Your task to perform on an android device: see creations saved in the google photos Image 0: 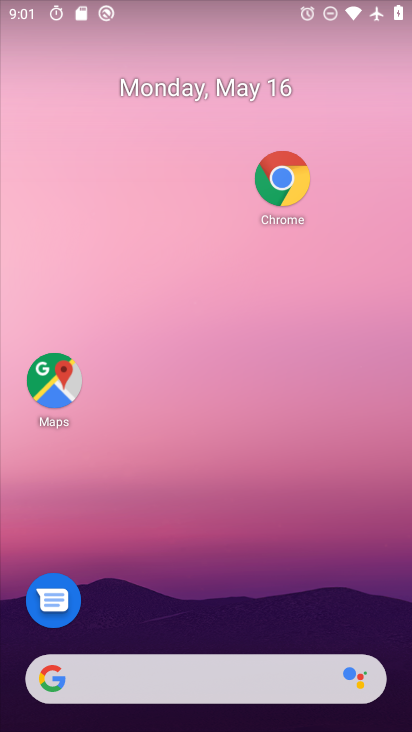
Step 0: drag from (150, 676) to (310, 90)
Your task to perform on an android device: see creations saved in the google photos Image 1: 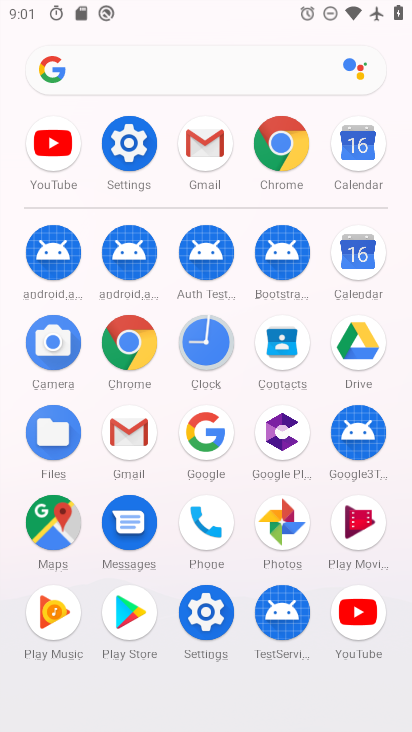
Step 1: click (281, 536)
Your task to perform on an android device: see creations saved in the google photos Image 2: 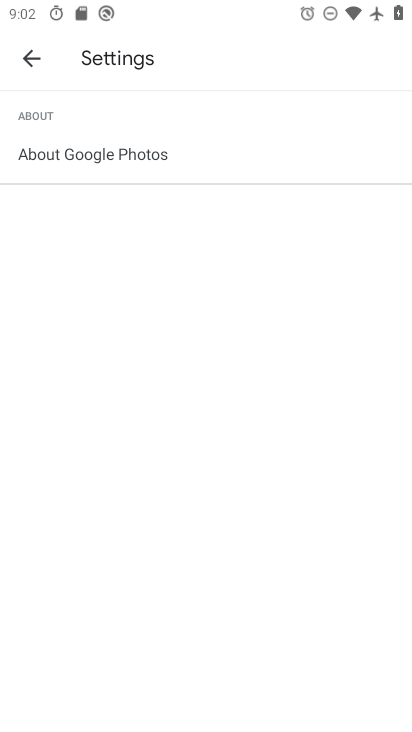
Step 2: click (42, 61)
Your task to perform on an android device: see creations saved in the google photos Image 3: 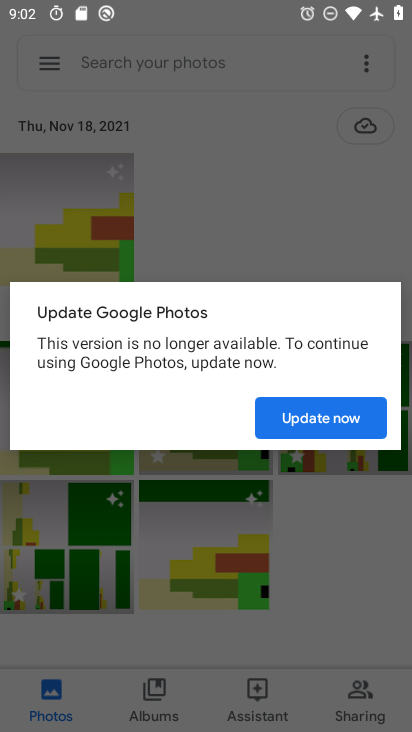
Step 3: click (333, 426)
Your task to perform on an android device: see creations saved in the google photos Image 4: 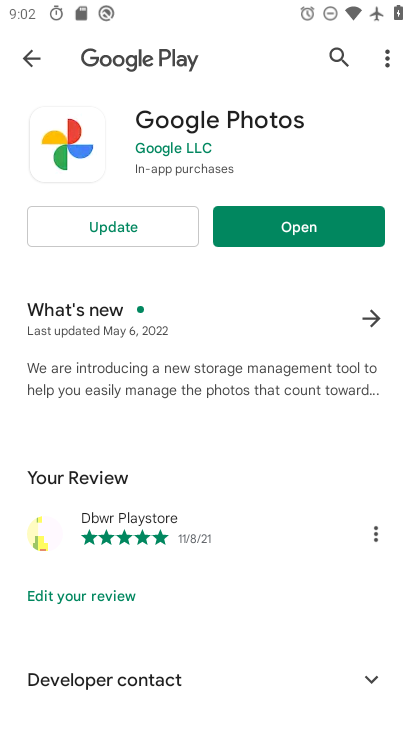
Step 4: click (309, 225)
Your task to perform on an android device: see creations saved in the google photos Image 5: 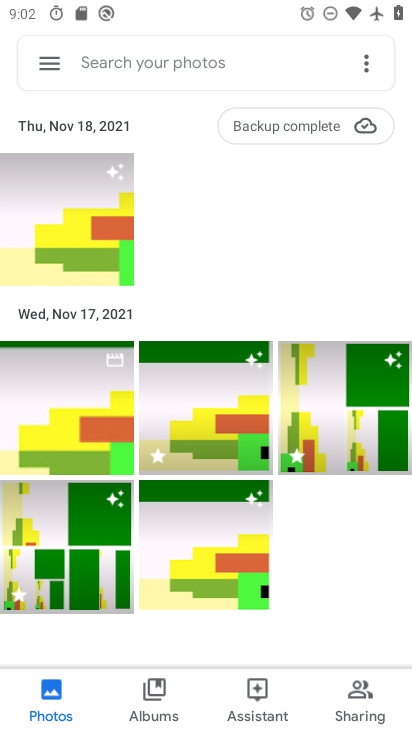
Step 5: click (155, 702)
Your task to perform on an android device: see creations saved in the google photos Image 6: 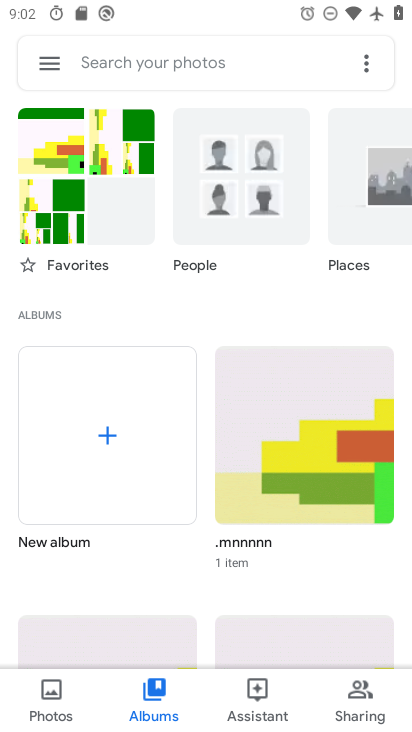
Step 6: click (192, 61)
Your task to perform on an android device: see creations saved in the google photos Image 7: 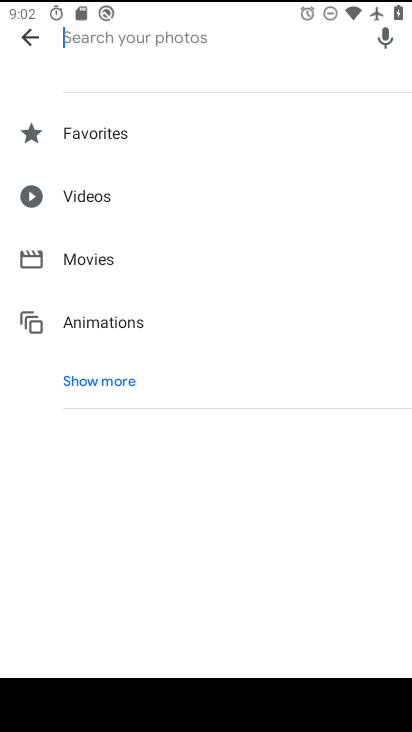
Step 7: click (128, 380)
Your task to perform on an android device: see creations saved in the google photos Image 8: 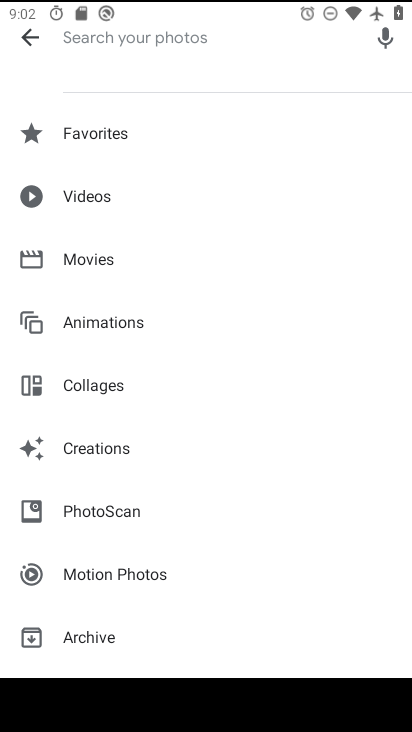
Step 8: click (128, 445)
Your task to perform on an android device: see creations saved in the google photos Image 9: 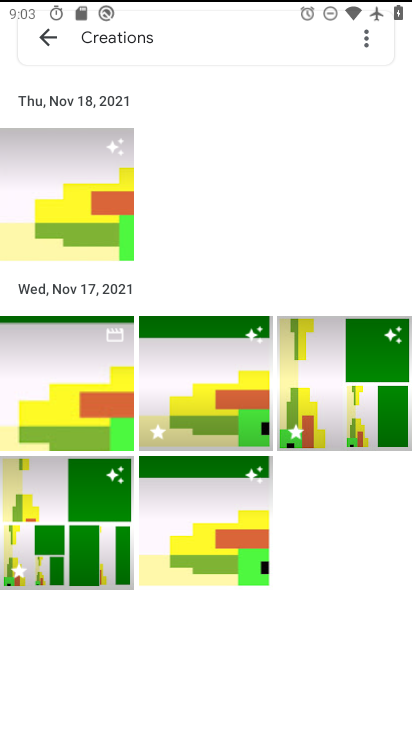
Step 9: task complete